Your task to perform on an android device: Go to network settings Image 0: 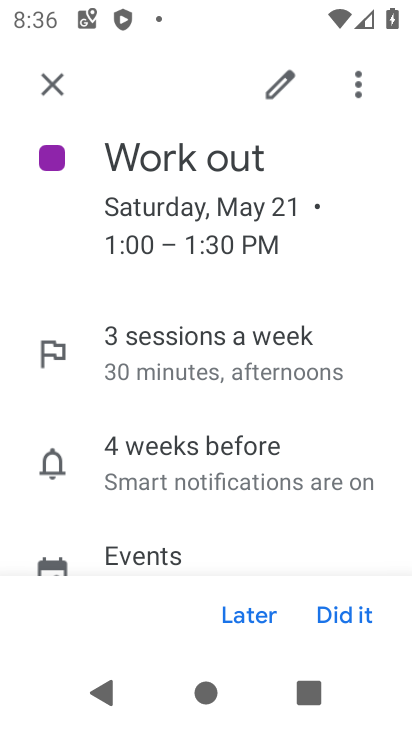
Step 0: drag from (201, 10) to (308, 566)
Your task to perform on an android device: Go to network settings Image 1: 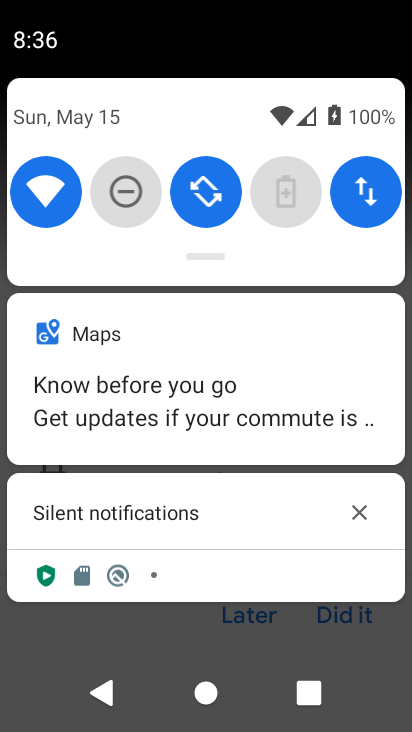
Step 1: click (365, 209)
Your task to perform on an android device: Go to network settings Image 2: 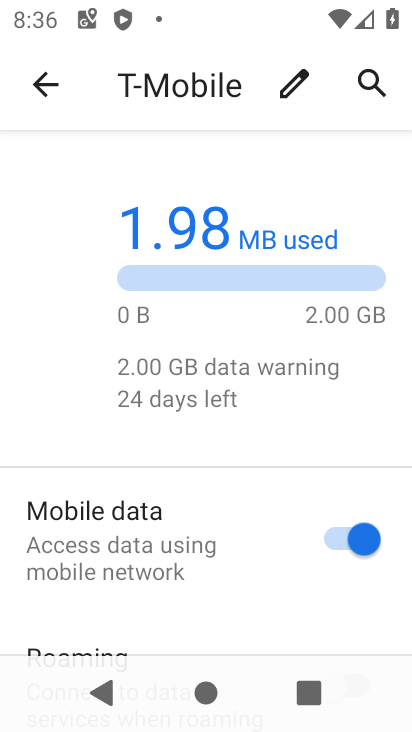
Step 2: task complete